Your task to perform on an android device: Open Chrome and go to the settings page Image 0: 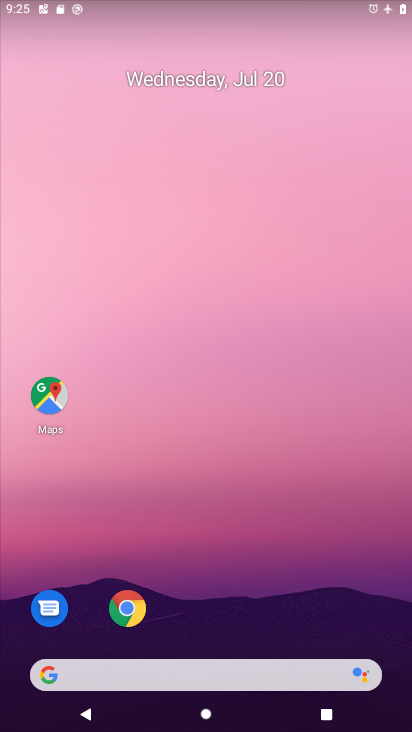
Step 0: drag from (259, 589) to (259, 502)
Your task to perform on an android device: Open Chrome and go to the settings page Image 1: 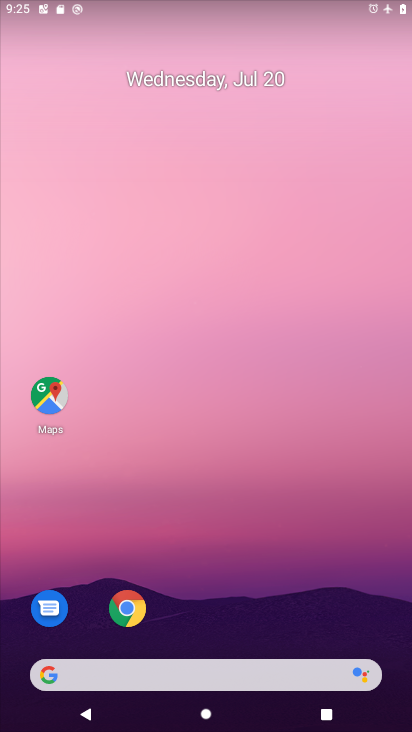
Step 1: click (128, 622)
Your task to perform on an android device: Open Chrome and go to the settings page Image 2: 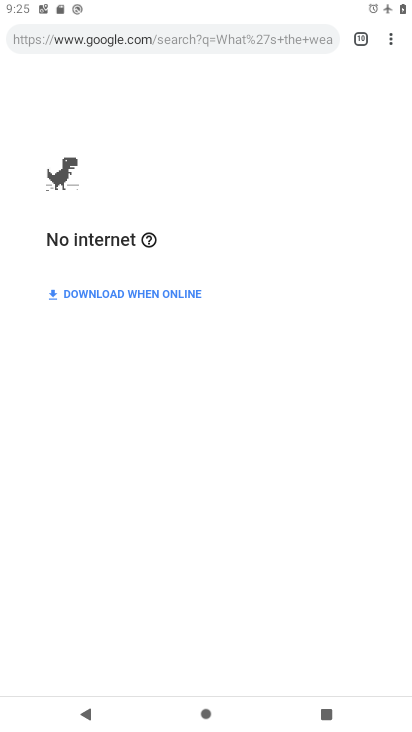
Step 2: click (390, 37)
Your task to perform on an android device: Open Chrome and go to the settings page Image 3: 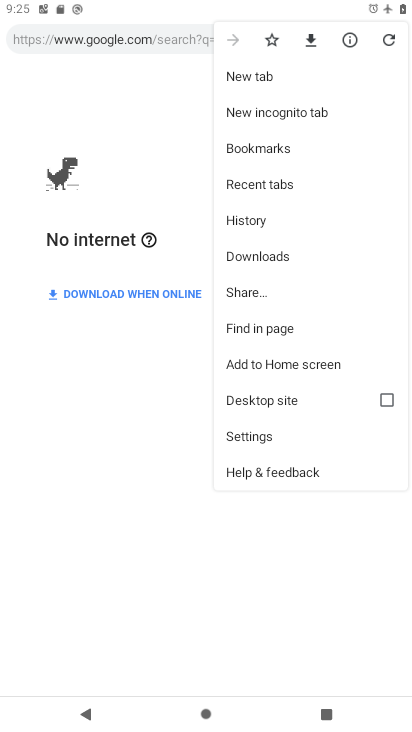
Step 3: click (261, 443)
Your task to perform on an android device: Open Chrome and go to the settings page Image 4: 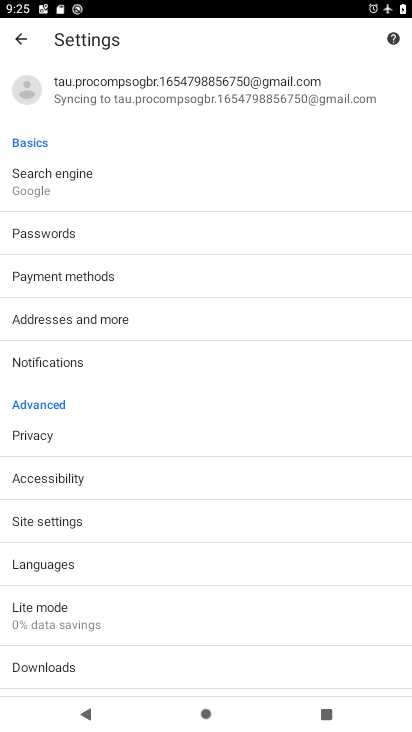
Step 4: task complete